Your task to perform on an android device: Open accessibility settings Image 0: 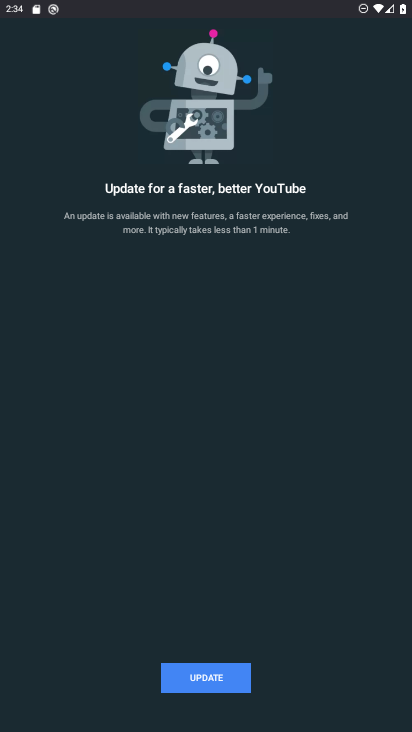
Step 0: press home button
Your task to perform on an android device: Open accessibility settings Image 1: 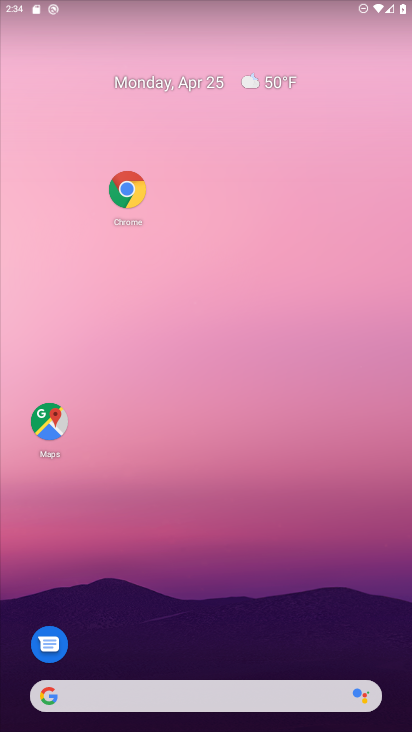
Step 1: drag from (147, 645) to (187, 130)
Your task to perform on an android device: Open accessibility settings Image 2: 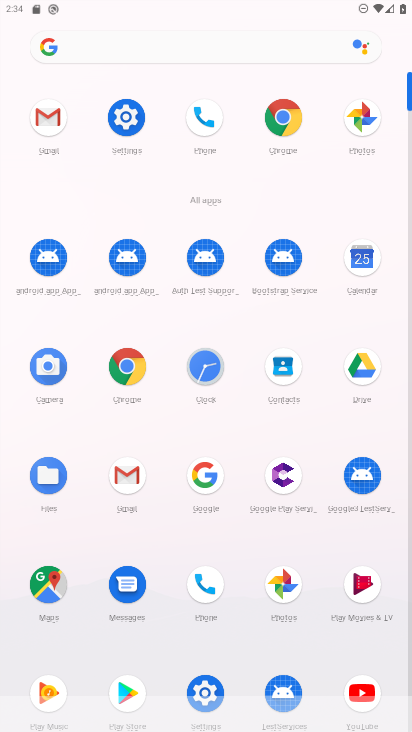
Step 2: click (194, 688)
Your task to perform on an android device: Open accessibility settings Image 3: 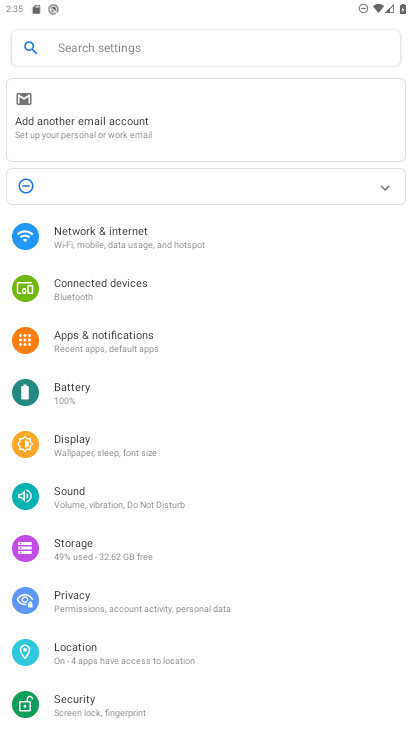
Step 3: drag from (166, 646) to (190, 329)
Your task to perform on an android device: Open accessibility settings Image 4: 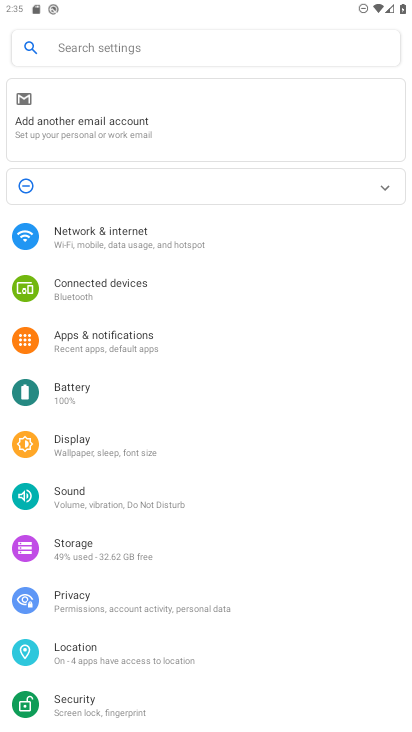
Step 4: drag from (140, 665) to (145, 307)
Your task to perform on an android device: Open accessibility settings Image 5: 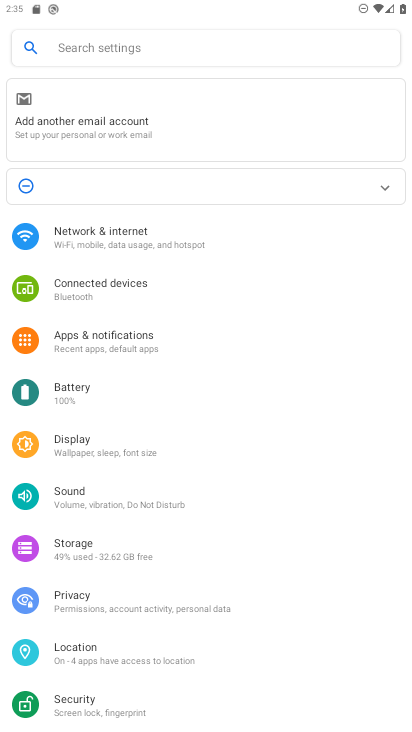
Step 5: drag from (112, 672) to (119, 419)
Your task to perform on an android device: Open accessibility settings Image 6: 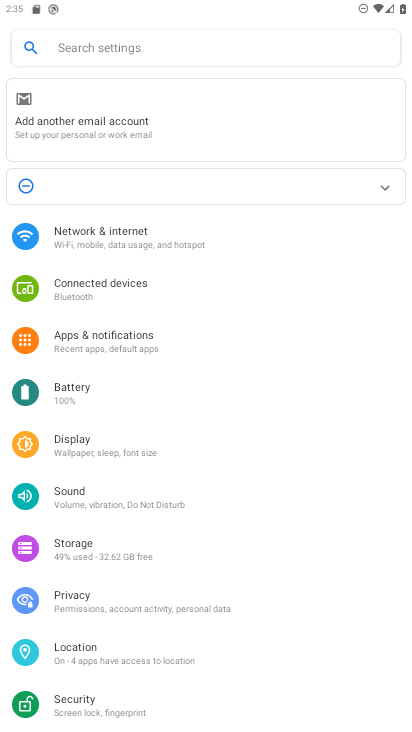
Step 6: drag from (126, 280) to (132, 465)
Your task to perform on an android device: Open accessibility settings Image 7: 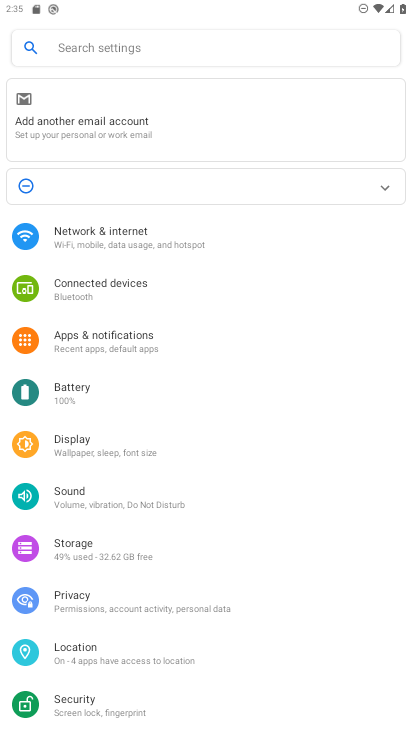
Step 7: drag from (122, 616) to (137, 232)
Your task to perform on an android device: Open accessibility settings Image 8: 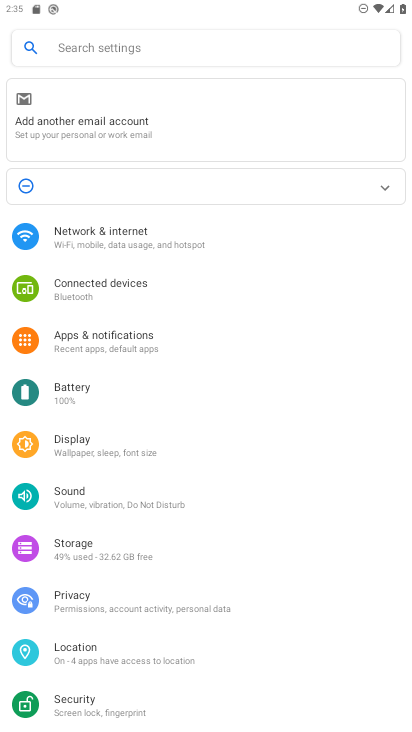
Step 8: drag from (154, 650) to (188, 337)
Your task to perform on an android device: Open accessibility settings Image 9: 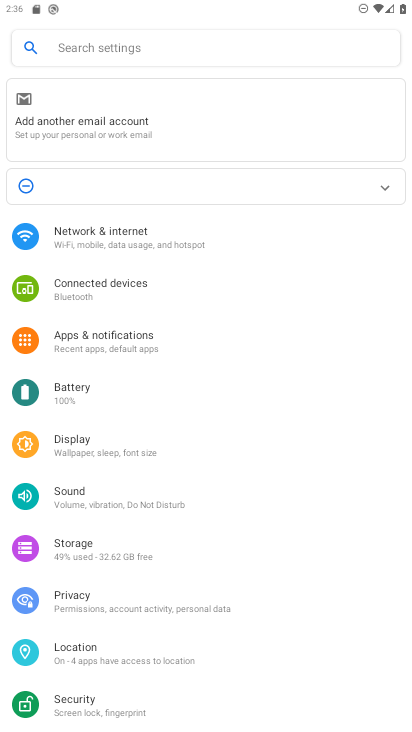
Step 9: drag from (161, 695) to (121, 223)
Your task to perform on an android device: Open accessibility settings Image 10: 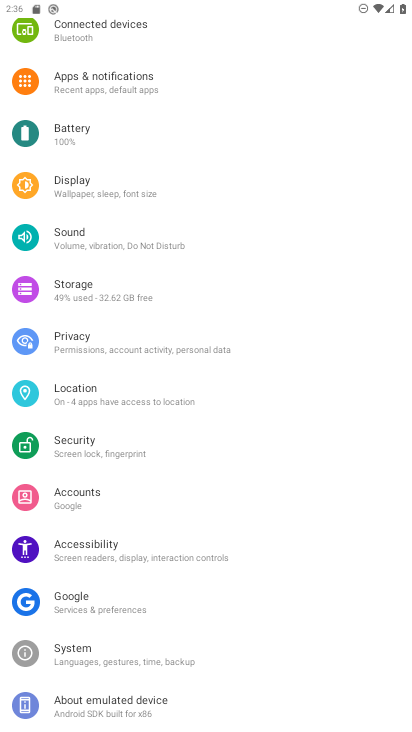
Step 10: click (139, 554)
Your task to perform on an android device: Open accessibility settings Image 11: 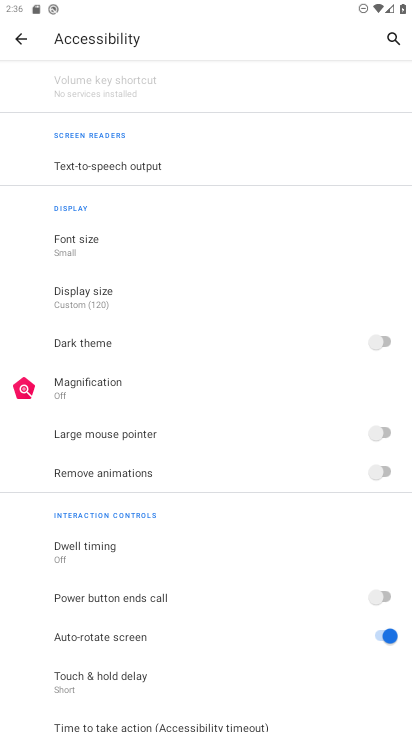
Step 11: task complete